Your task to perform on an android device: turn off data saver in the chrome app Image 0: 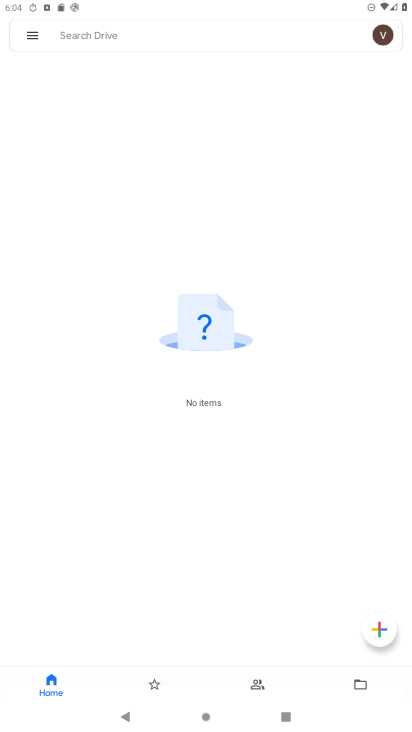
Step 0: press home button
Your task to perform on an android device: turn off data saver in the chrome app Image 1: 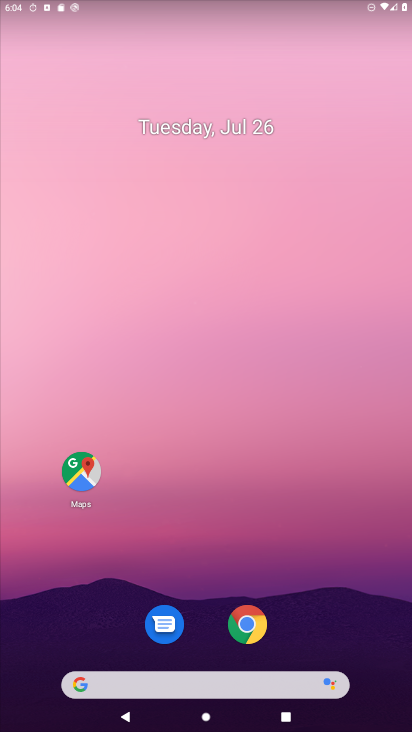
Step 1: drag from (286, 648) to (342, 2)
Your task to perform on an android device: turn off data saver in the chrome app Image 2: 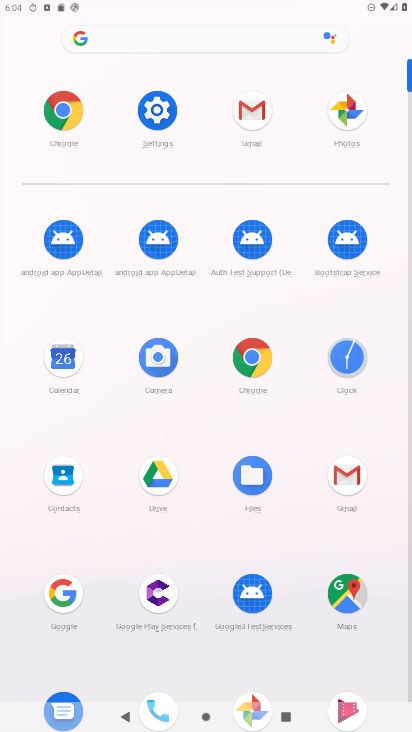
Step 2: click (264, 367)
Your task to perform on an android device: turn off data saver in the chrome app Image 3: 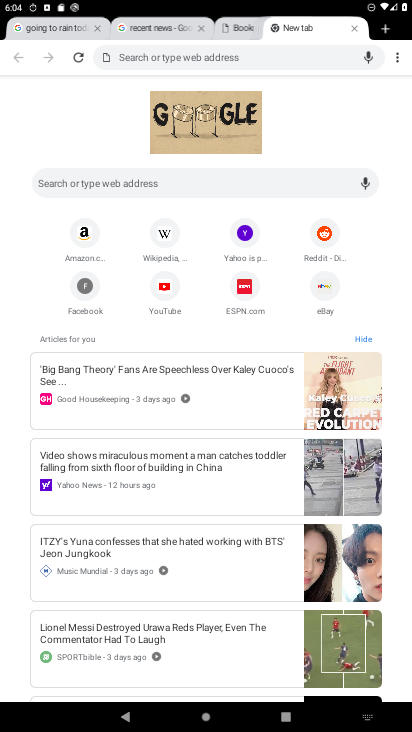
Step 3: click (404, 58)
Your task to perform on an android device: turn off data saver in the chrome app Image 4: 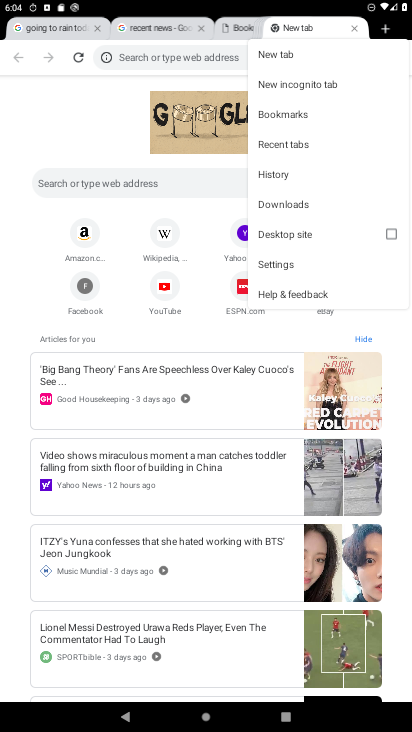
Step 4: click (287, 271)
Your task to perform on an android device: turn off data saver in the chrome app Image 5: 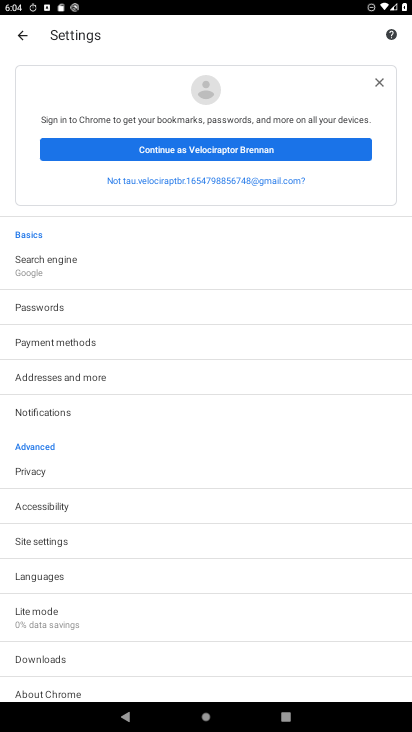
Step 5: click (63, 616)
Your task to perform on an android device: turn off data saver in the chrome app Image 6: 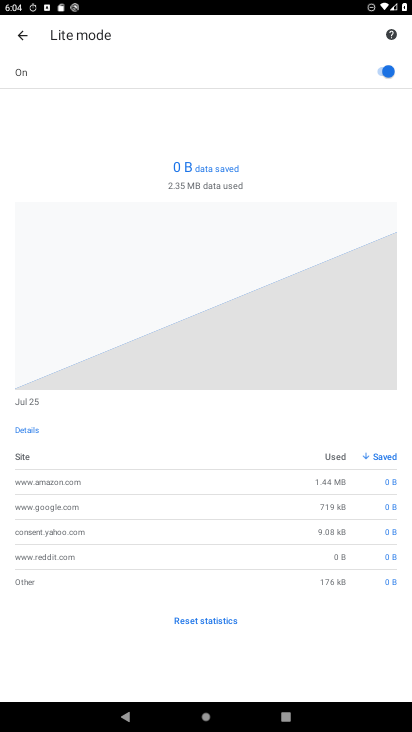
Step 6: click (385, 71)
Your task to perform on an android device: turn off data saver in the chrome app Image 7: 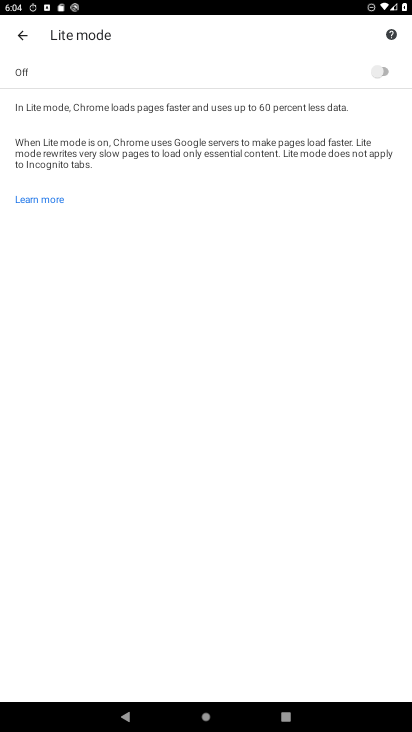
Step 7: task complete